Your task to perform on an android device: Open Google Maps Image 0: 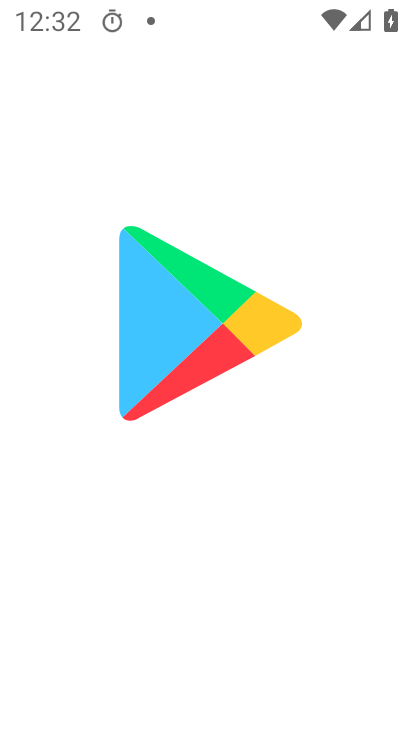
Step 0: press home button
Your task to perform on an android device: Open Google Maps Image 1: 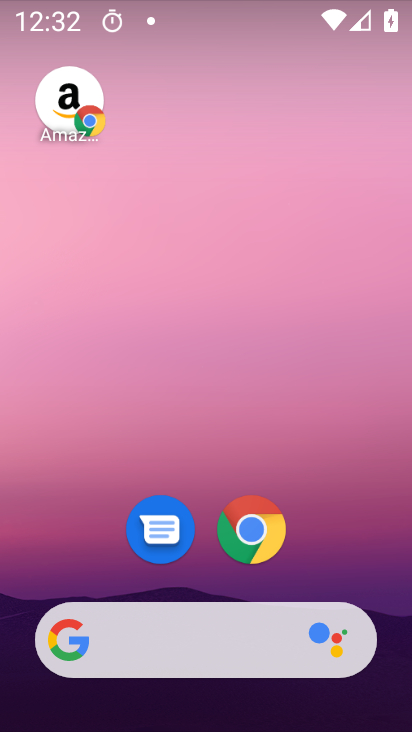
Step 1: drag from (330, 556) to (335, 26)
Your task to perform on an android device: Open Google Maps Image 2: 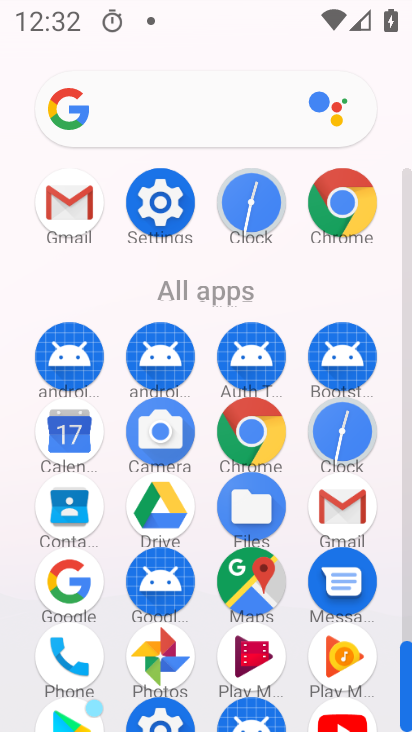
Step 2: click (250, 586)
Your task to perform on an android device: Open Google Maps Image 3: 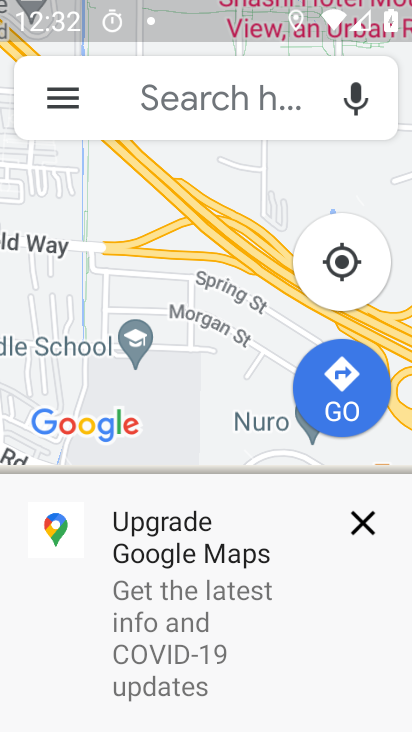
Step 3: task complete